Your task to perform on an android device: Turn off the flashlight Image 0: 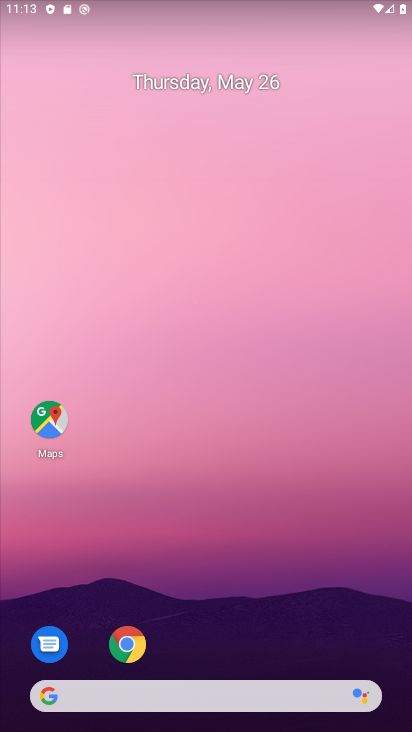
Step 0: drag from (241, 1) to (245, 594)
Your task to perform on an android device: Turn off the flashlight Image 1: 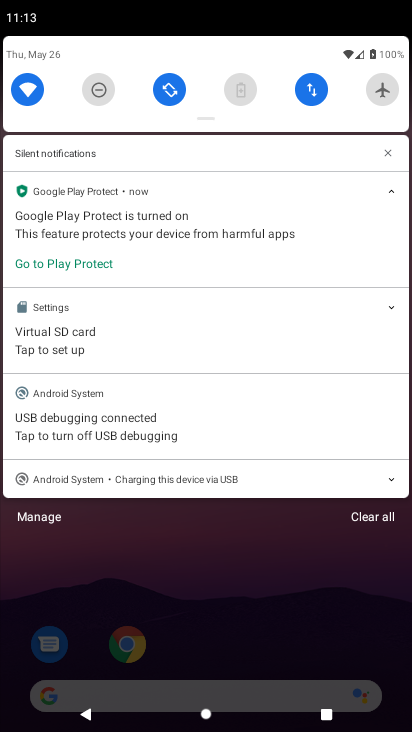
Step 1: task complete